Your task to perform on an android device: change timer sound Image 0: 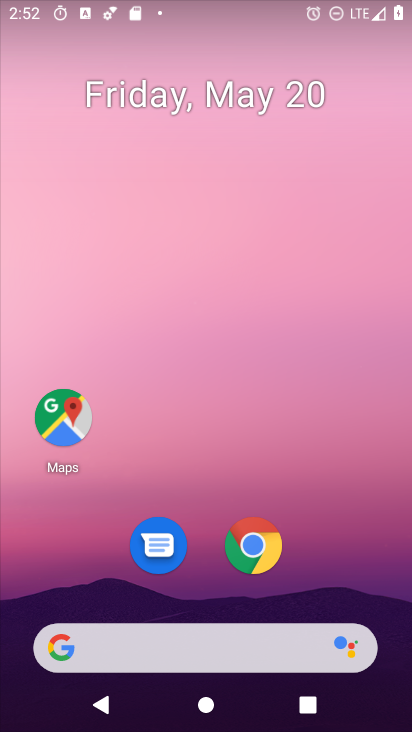
Step 0: drag from (317, 625) to (295, 5)
Your task to perform on an android device: change timer sound Image 1: 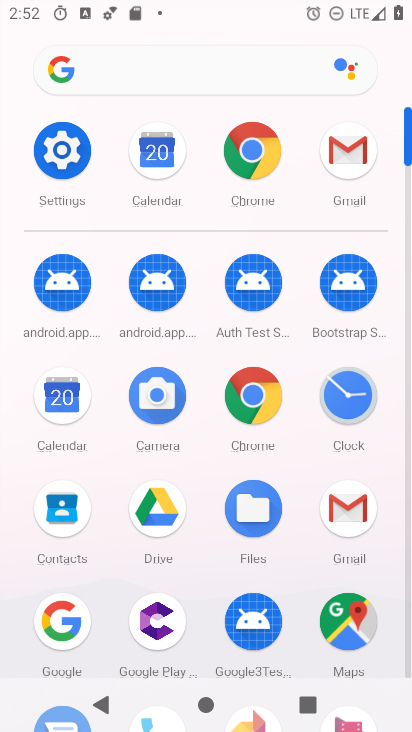
Step 1: click (345, 397)
Your task to perform on an android device: change timer sound Image 2: 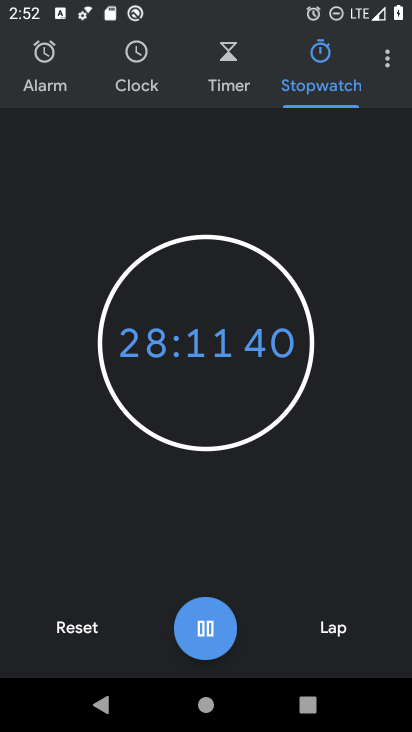
Step 2: click (379, 56)
Your task to perform on an android device: change timer sound Image 3: 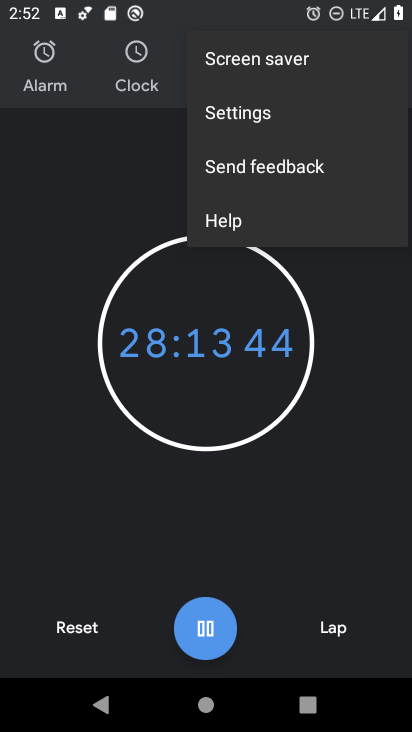
Step 3: click (261, 110)
Your task to perform on an android device: change timer sound Image 4: 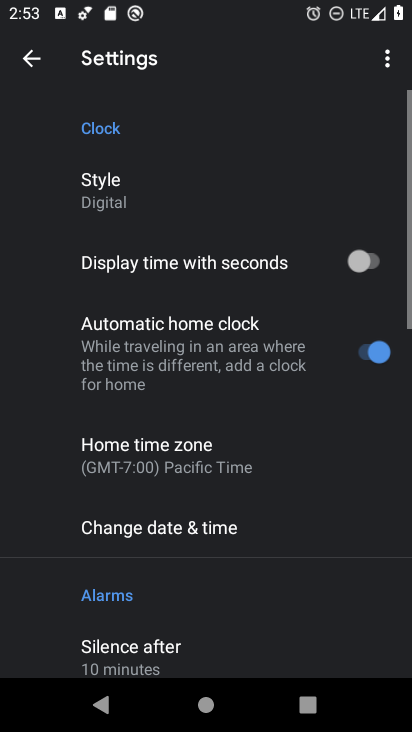
Step 4: drag from (271, 565) to (265, 55)
Your task to perform on an android device: change timer sound Image 5: 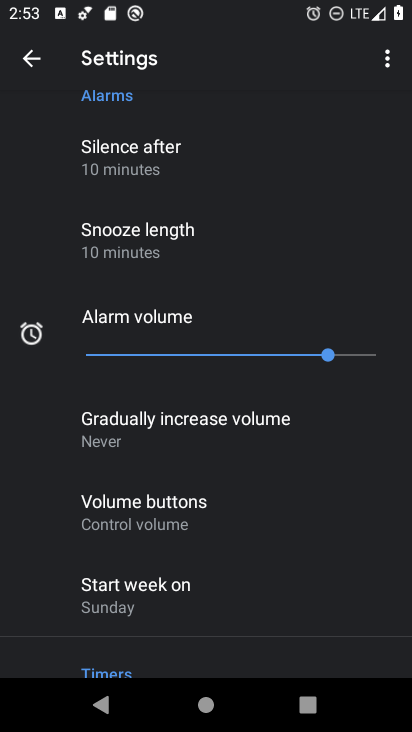
Step 5: drag from (338, 652) to (325, 121)
Your task to perform on an android device: change timer sound Image 6: 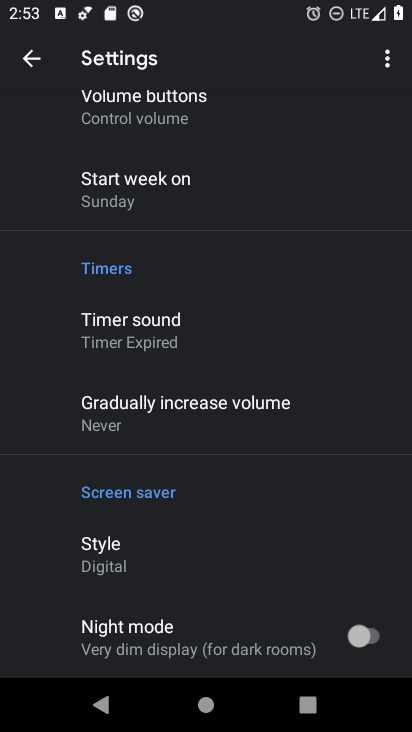
Step 6: click (199, 340)
Your task to perform on an android device: change timer sound Image 7: 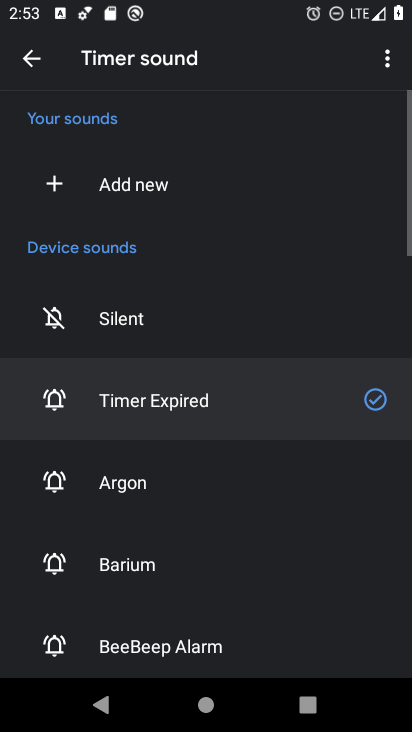
Step 7: click (161, 501)
Your task to perform on an android device: change timer sound Image 8: 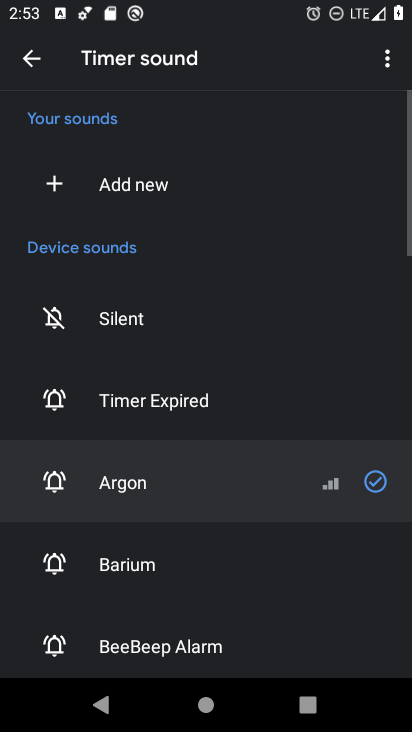
Step 8: task complete